Your task to perform on an android device: Open the stopwatch Image 0: 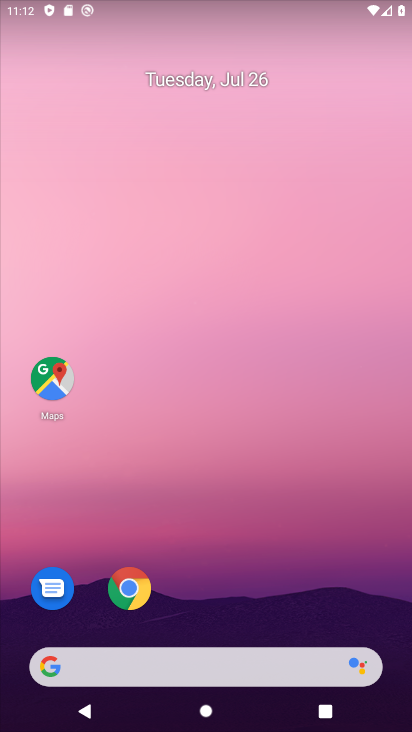
Step 0: drag from (50, 677) to (200, 202)
Your task to perform on an android device: Open the stopwatch Image 1: 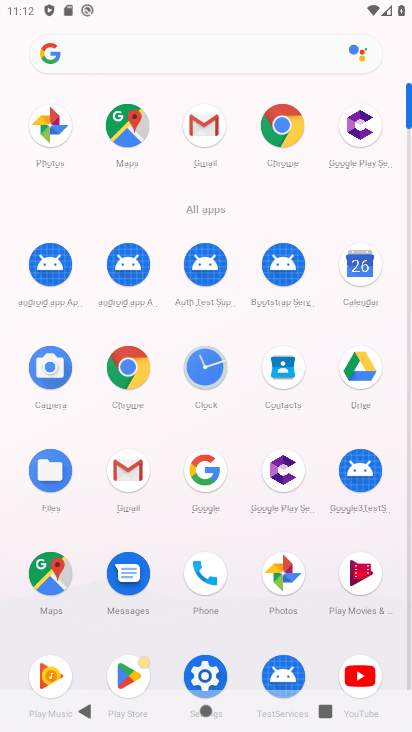
Step 1: click (213, 375)
Your task to perform on an android device: Open the stopwatch Image 2: 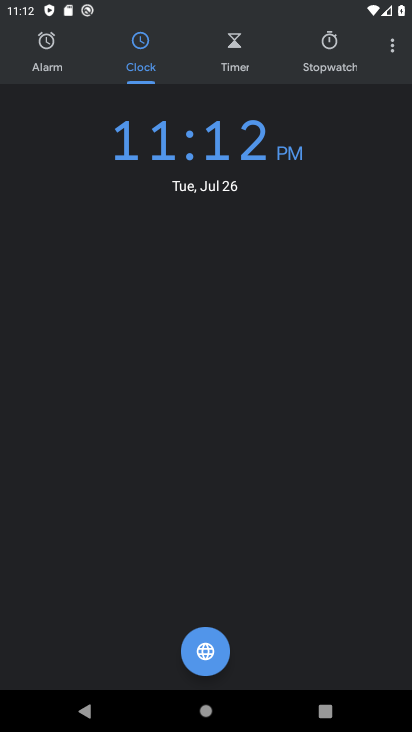
Step 2: click (338, 71)
Your task to perform on an android device: Open the stopwatch Image 3: 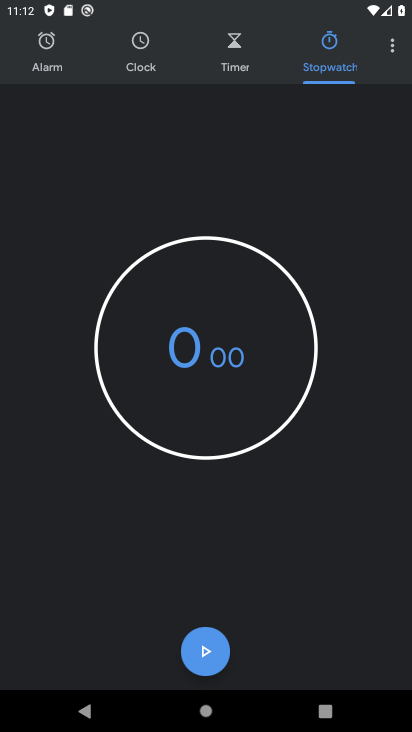
Step 3: task complete